Your task to perform on an android device: turn on sleep mode Image 0: 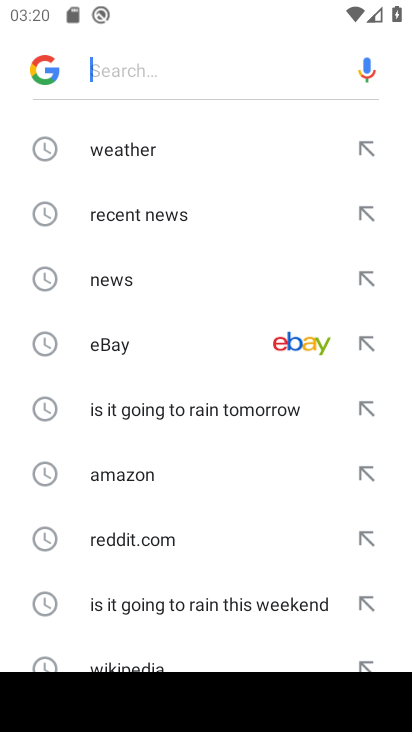
Step 0: press home button
Your task to perform on an android device: turn on sleep mode Image 1: 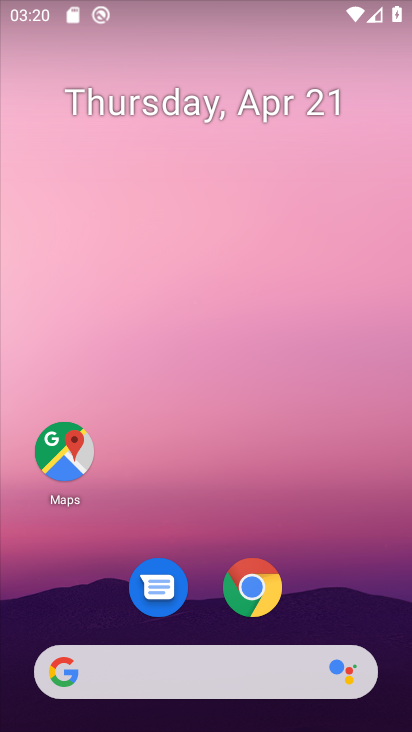
Step 1: drag from (328, 602) to (338, 114)
Your task to perform on an android device: turn on sleep mode Image 2: 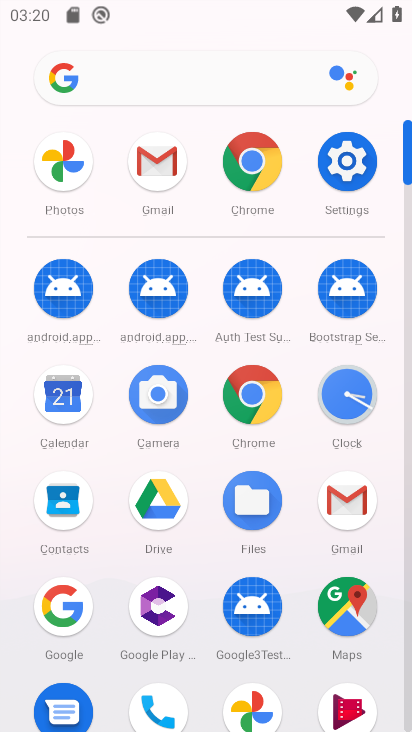
Step 2: click (348, 168)
Your task to perform on an android device: turn on sleep mode Image 3: 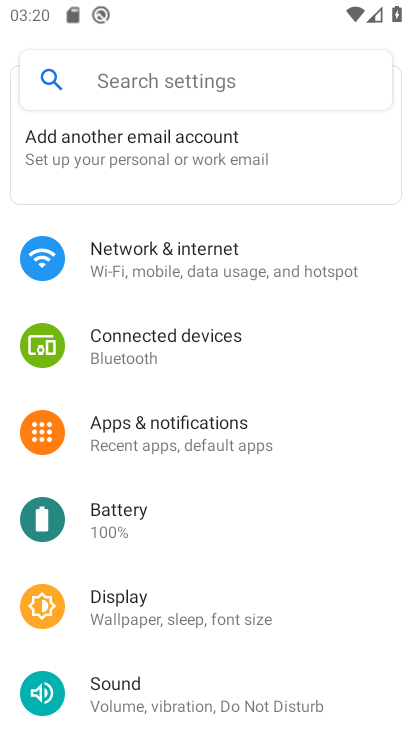
Step 3: drag from (322, 566) to (319, 447)
Your task to perform on an android device: turn on sleep mode Image 4: 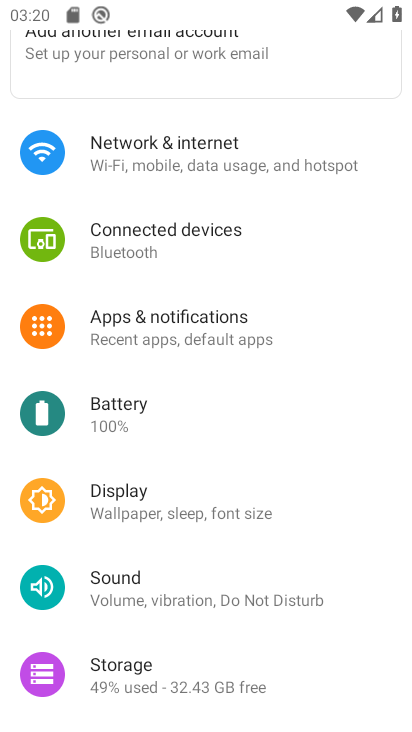
Step 4: drag from (349, 617) to (345, 462)
Your task to perform on an android device: turn on sleep mode Image 5: 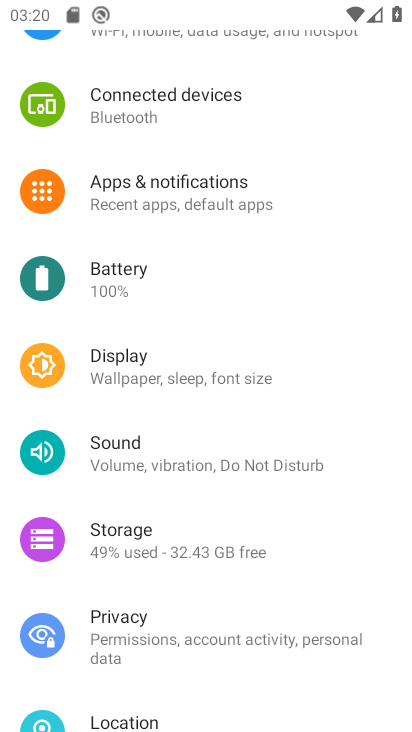
Step 5: drag from (320, 589) to (352, 404)
Your task to perform on an android device: turn on sleep mode Image 6: 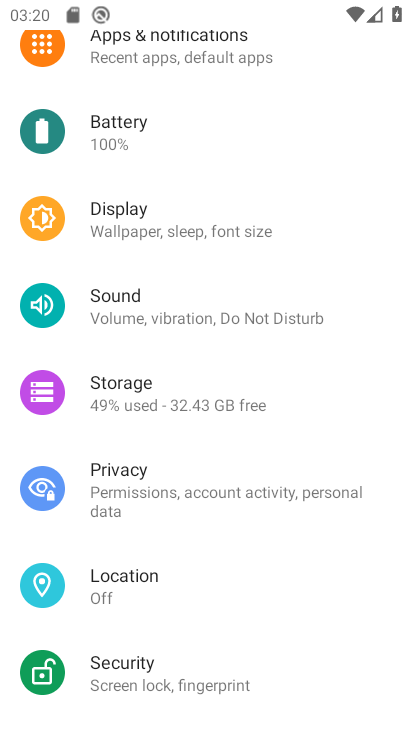
Step 6: drag from (354, 614) to (370, 404)
Your task to perform on an android device: turn on sleep mode Image 7: 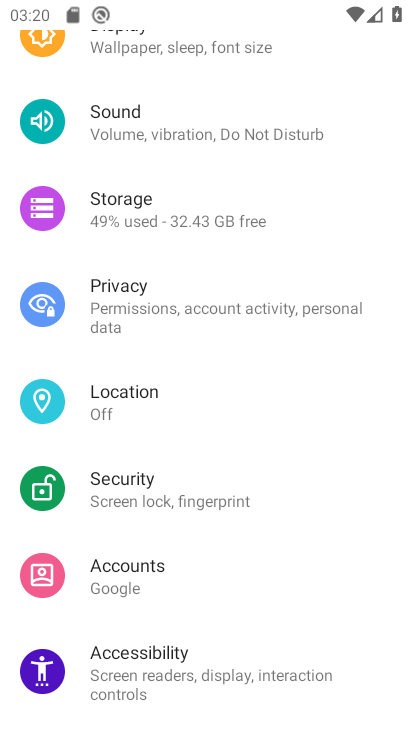
Step 7: drag from (312, 606) to (323, 371)
Your task to perform on an android device: turn on sleep mode Image 8: 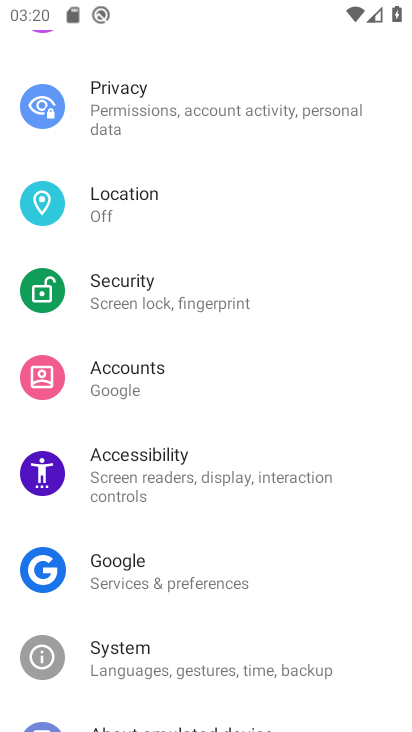
Step 8: drag from (336, 329) to (338, 452)
Your task to perform on an android device: turn on sleep mode Image 9: 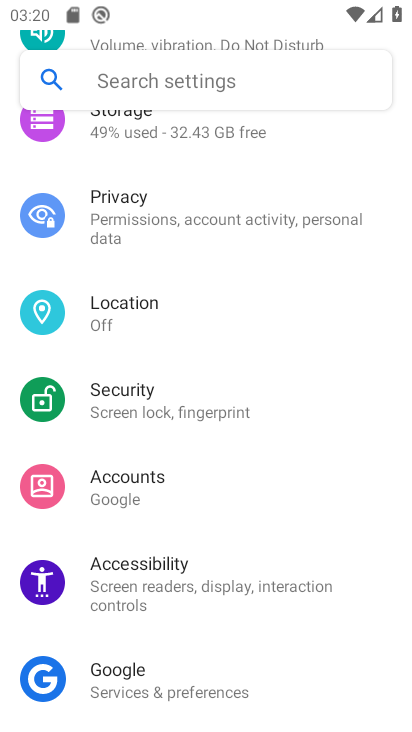
Step 9: drag from (347, 305) to (340, 447)
Your task to perform on an android device: turn on sleep mode Image 10: 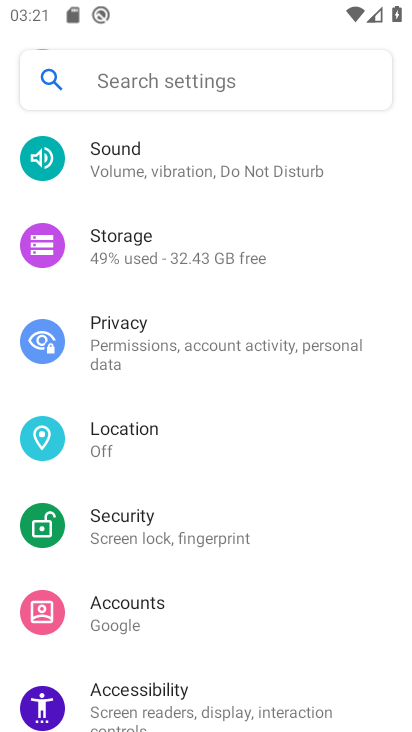
Step 10: drag from (354, 292) to (334, 468)
Your task to perform on an android device: turn on sleep mode Image 11: 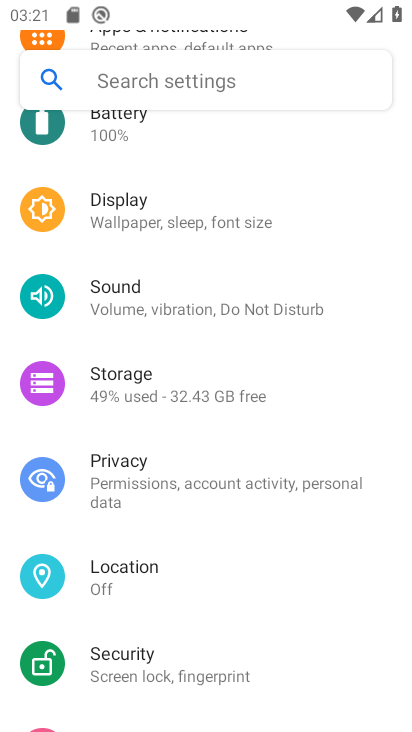
Step 11: drag from (353, 273) to (342, 437)
Your task to perform on an android device: turn on sleep mode Image 12: 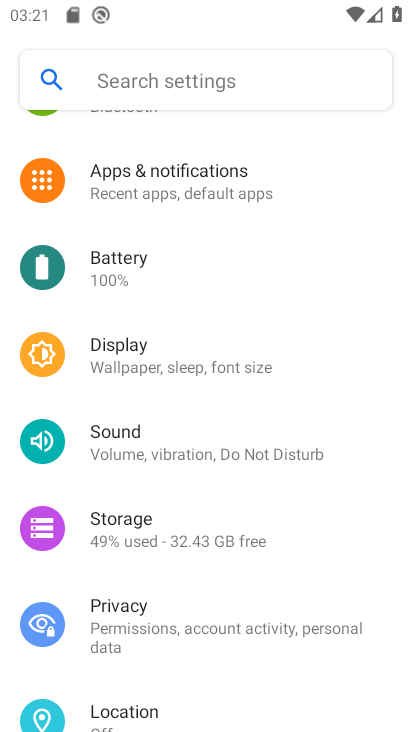
Step 12: drag from (340, 262) to (344, 409)
Your task to perform on an android device: turn on sleep mode Image 13: 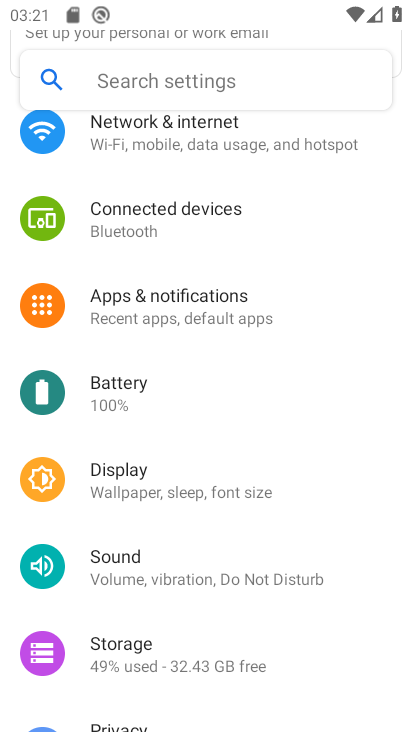
Step 13: click (217, 493)
Your task to perform on an android device: turn on sleep mode Image 14: 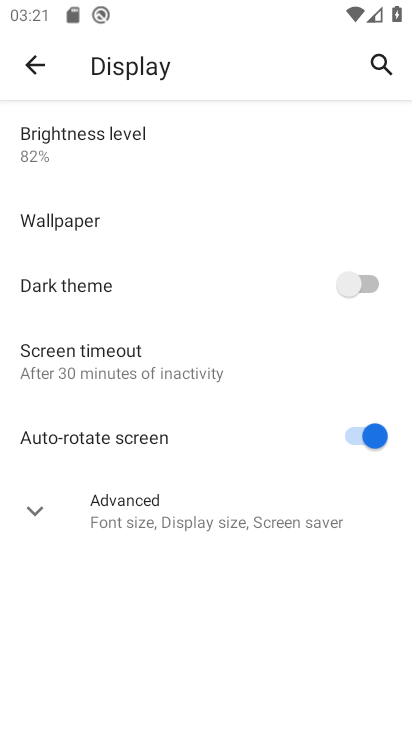
Step 14: click (212, 513)
Your task to perform on an android device: turn on sleep mode Image 15: 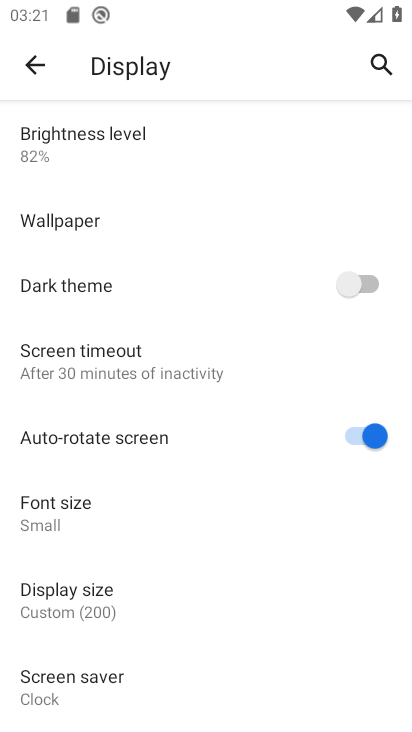
Step 15: task complete